Your task to perform on an android device: What's the weather going to be this weekend? Image 0: 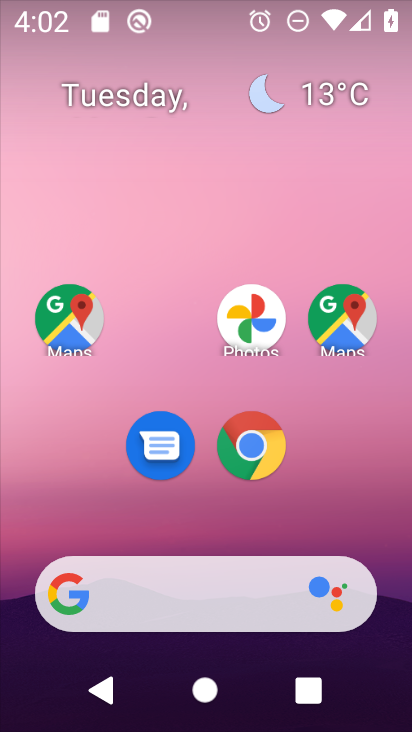
Step 0: click (256, 598)
Your task to perform on an android device: What's the weather going to be this weekend? Image 1: 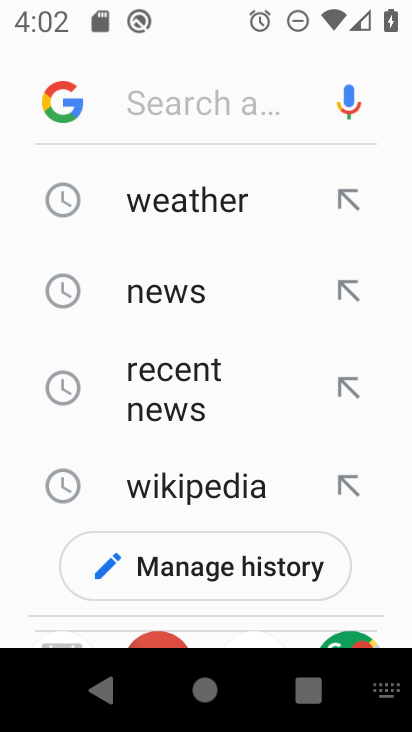
Step 1: click (234, 205)
Your task to perform on an android device: What's the weather going to be this weekend? Image 2: 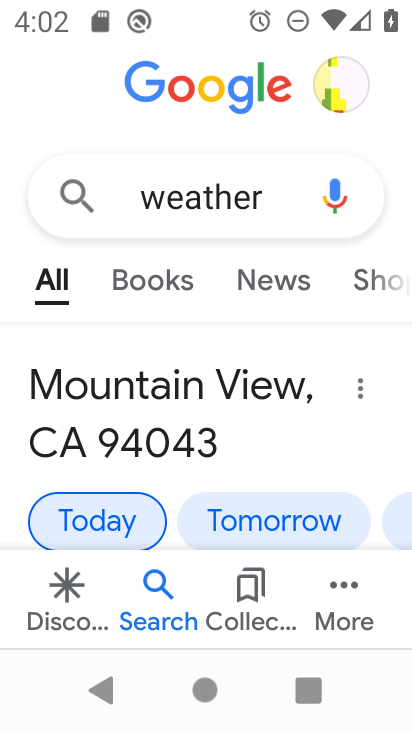
Step 2: click (404, 517)
Your task to perform on an android device: What's the weather going to be this weekend? Image 3: 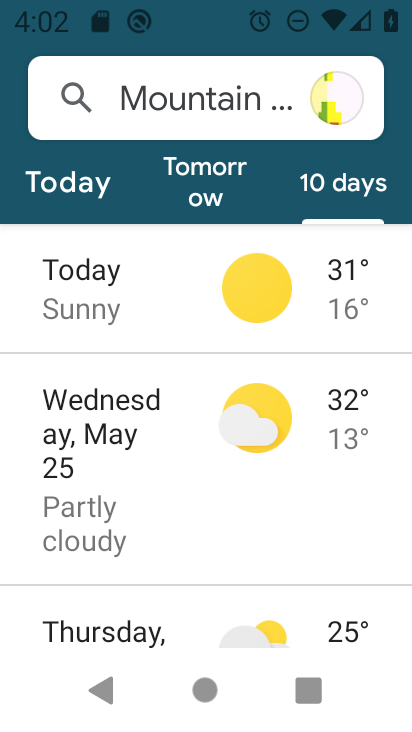
Step 3: drag from (315, 547) to (333, 482)
Your task to perform on an android device: What's the weather going to be this weekend? Image 4: 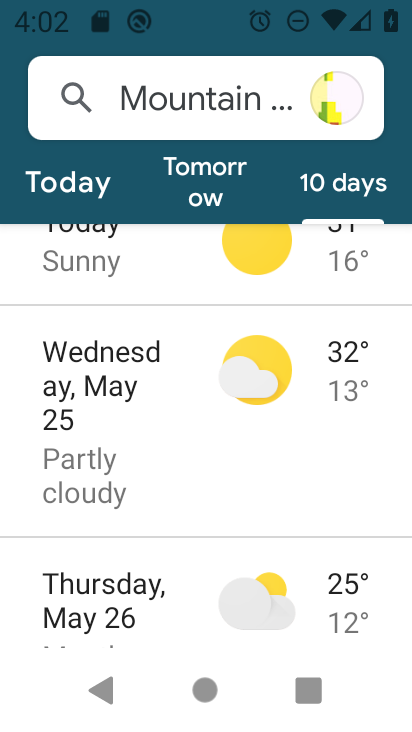
Step 4: drag from (294, 590) to (298, 524)
Your task to perform on an android device: What's the weather going to be this weekend? Image 5: 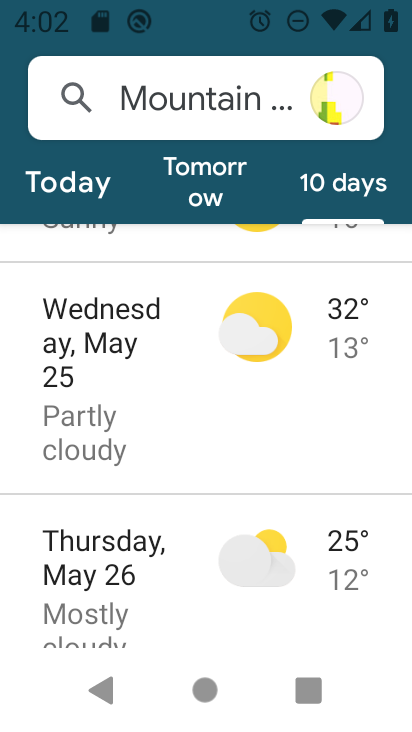
Step 5: drag from (297, 614) to (315, 513)
Your task to perform on an android device: What's the weather going to be this weekend? Image 6: 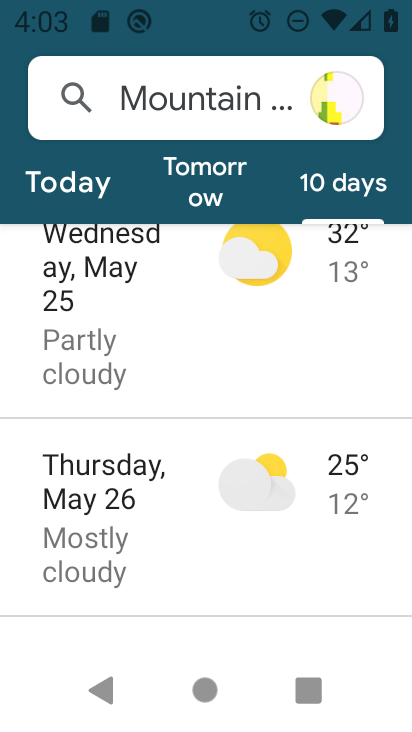
Step 6: drag from (299, 603) to (313, 527)
Your task to perform on an android device: What's the weather going to be this weekend? Image 7: 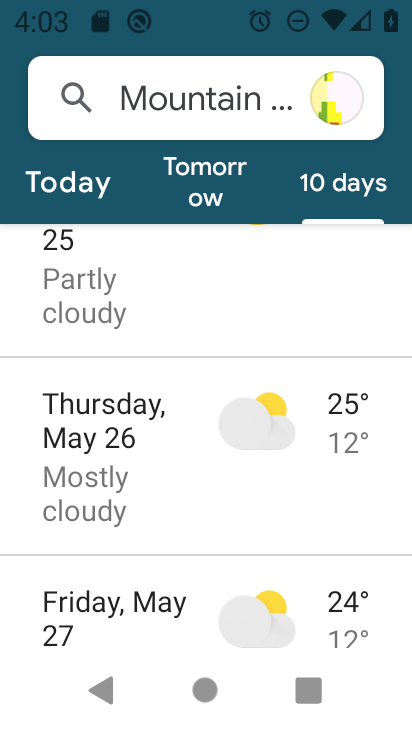
Step 7: drag from (291, 615) to (275, 508)
Your task to perform on an android device: What's the weather going to be this weekend? Image 8: 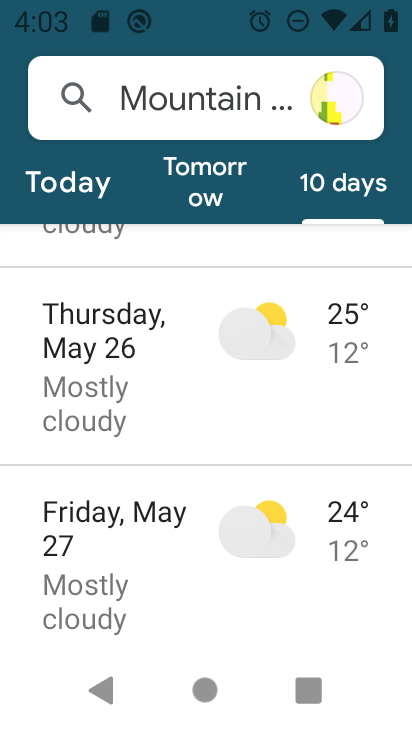
Step 8: drag from (282, 598) to (303, 488)
Your task to perform on an android device: What's the weather going to be this weekend? Image 9: 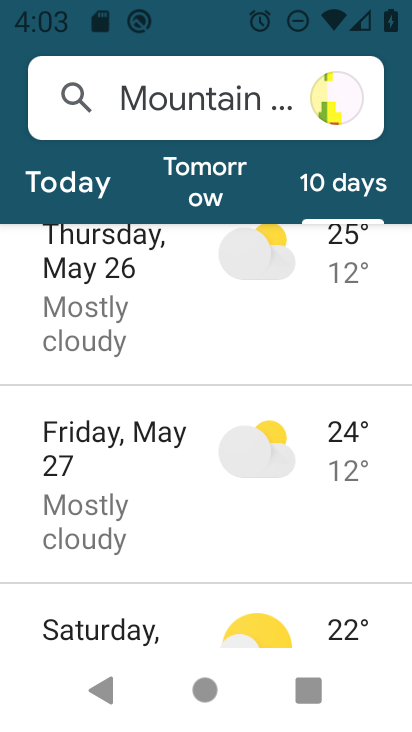
Step 9: drag from (296, 585) to (311, 482)
Your task to perform on an android device: What's the weather going to be this weekend? Image 10: 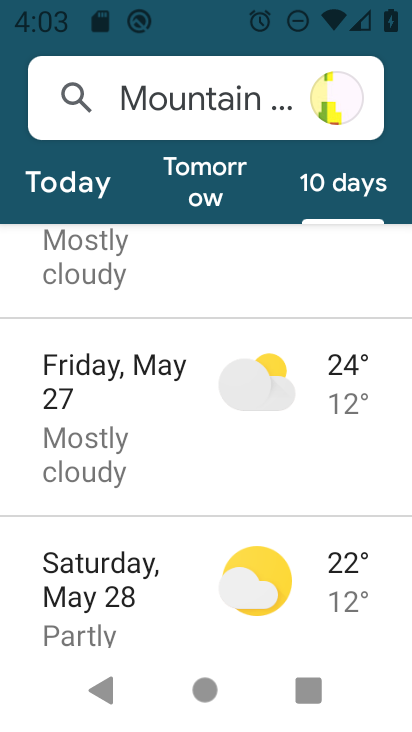
Step 10: drag from (317, 598) to (312, 456)
Your task to perform on an android device: What's the weather going to be this weekend? Image 11: 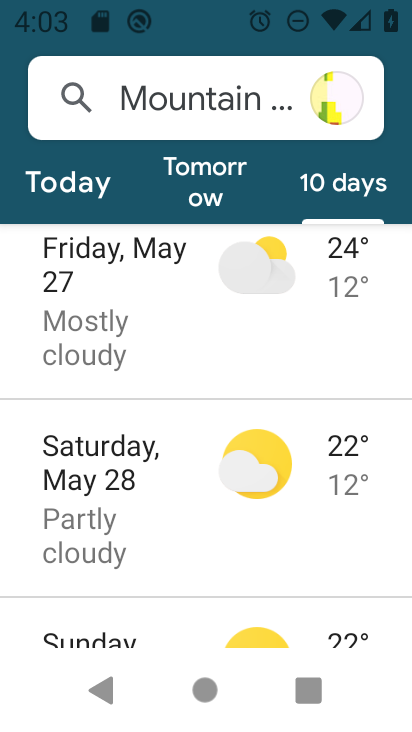
Step 11: click (263, 530)
Your task to perform on an android device: What's the weather going to be this weekend? Image 12: 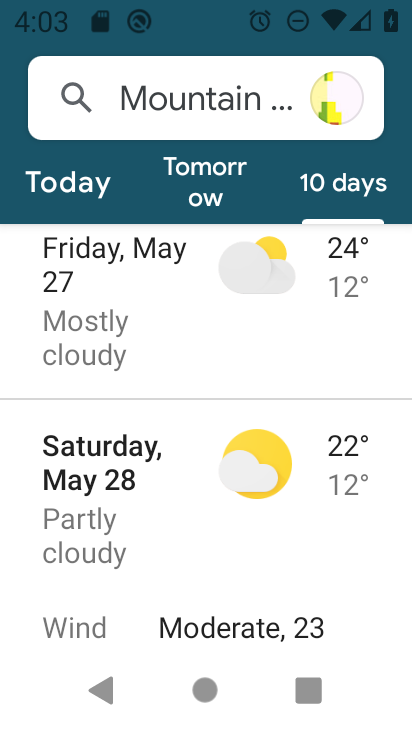
Step 12: task complete